Your task to perform on an android device: What's the weather? Image 0: 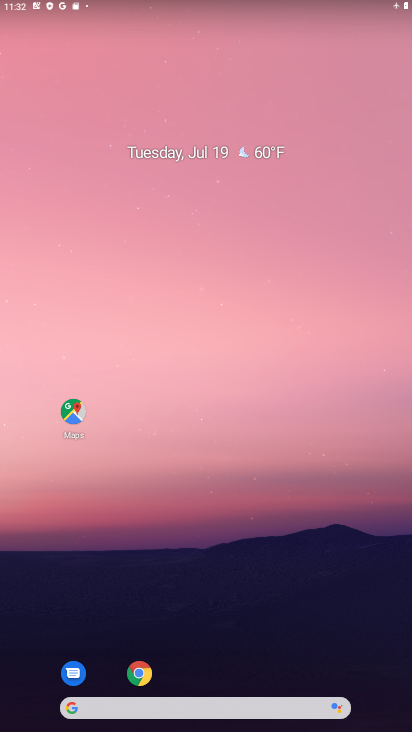
Step 0: click (257, 154)
Your task to perform on an android device: What's the weather? Image 1: 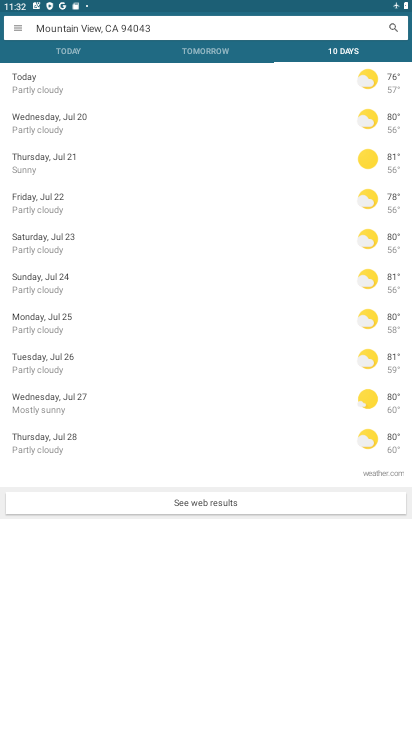
Step 1: click (55, 46)
Your task to perform on an android device: What's the weather? Image 2: 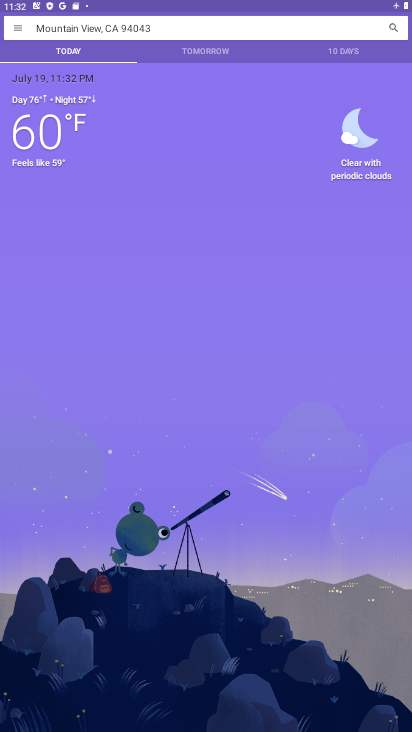
Step 2: task complete